Your task to perform on an android device: turn off notifications in google photos Image 0: 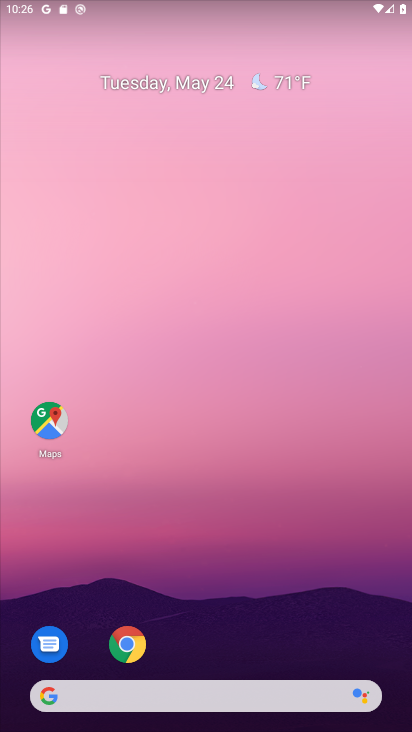
Step 0: drag from (247, 622) to (161, 123)
Your task to perform on an android device: turn off notifications in google photos Image 1: 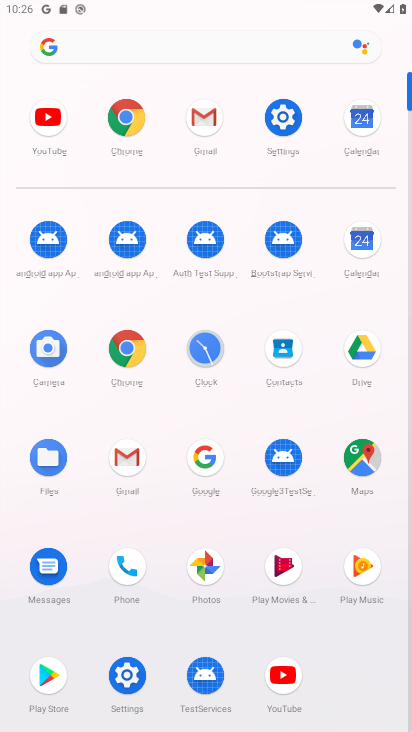
Step 1: click (197, 565)
Your task to perform on an android device: turn off notifications in google photos Image 2: 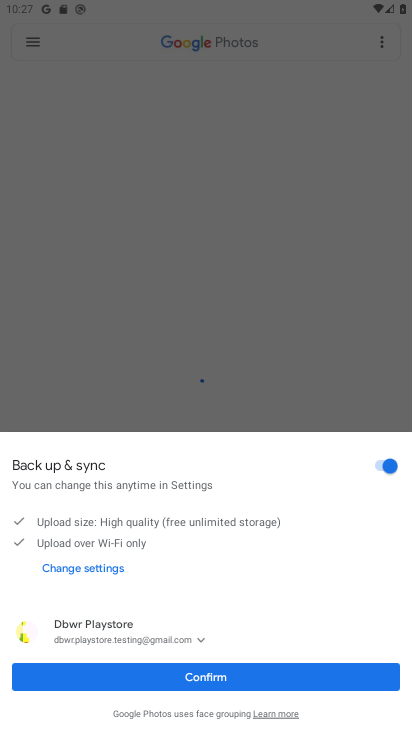
Step 2: click (223, 676)
Your task to perform on an android device: turn off notifications in google photos Image 3: 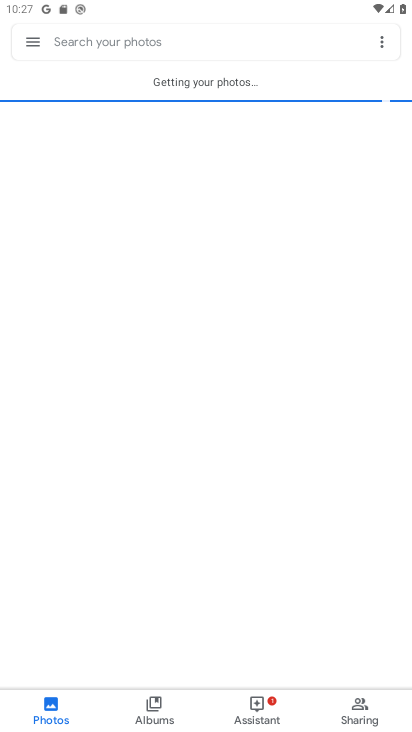
Step 3: click (34, 39)
Your task to perform on an android device: turn off notifications in google photos Image 4: 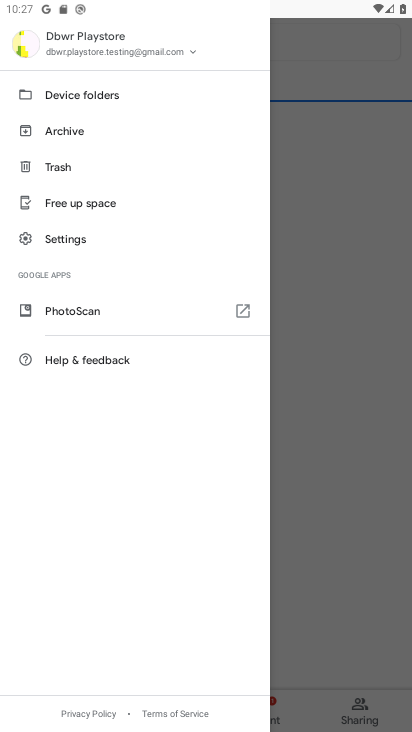
Step 4: click (74, 242)
Your task to perform on an android device: turn off notifications in google photos Image 5: 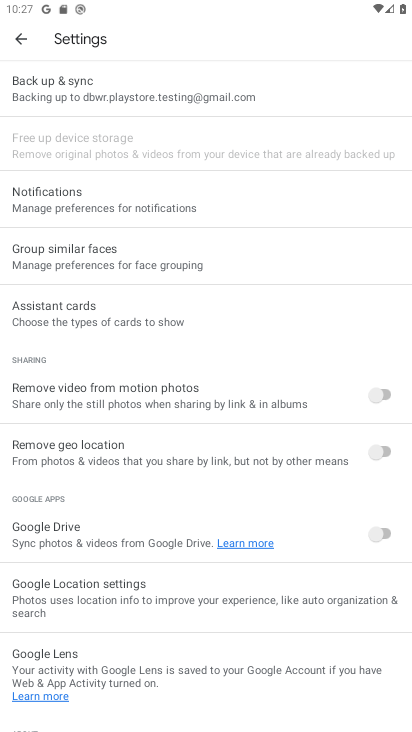
Step 5: click (53, 188)
Your task to perform on an android device: turn off notifications in google photos Image 6: 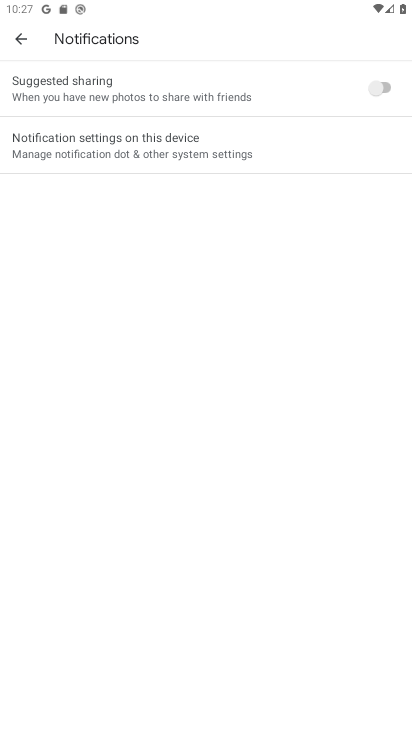
Step 6: click (106, 147)
Your task to perform on an android device: turn off notifications in google photos Image 7: 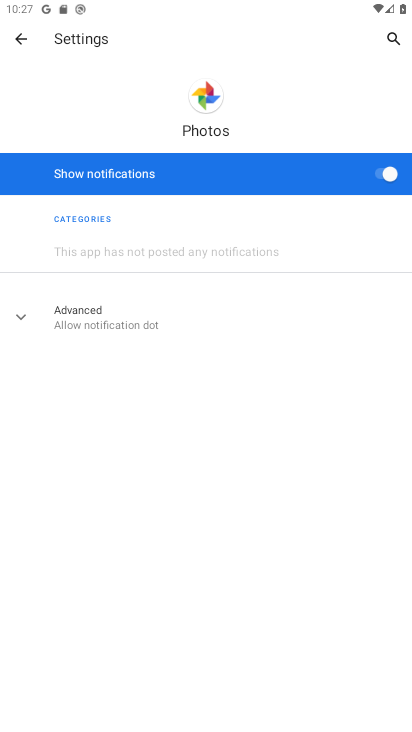
Step 7: click (381, 175)
Your task to perform on an android device: turn off notifications in google photos Image 8: 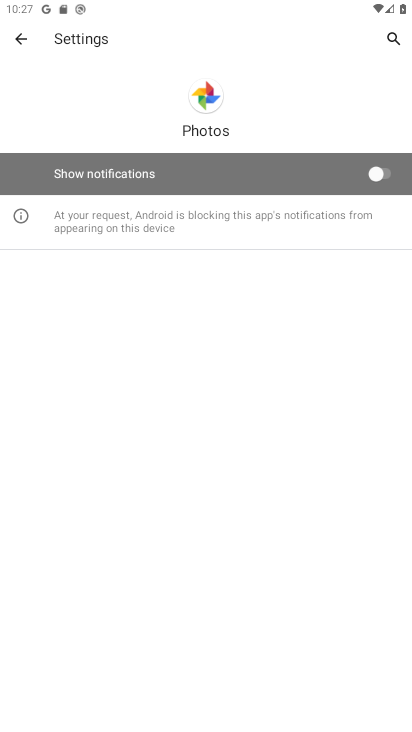
Step 8: task complete